Your task to perform on an android device: Open calendar and show me the first week of next month Image 0: 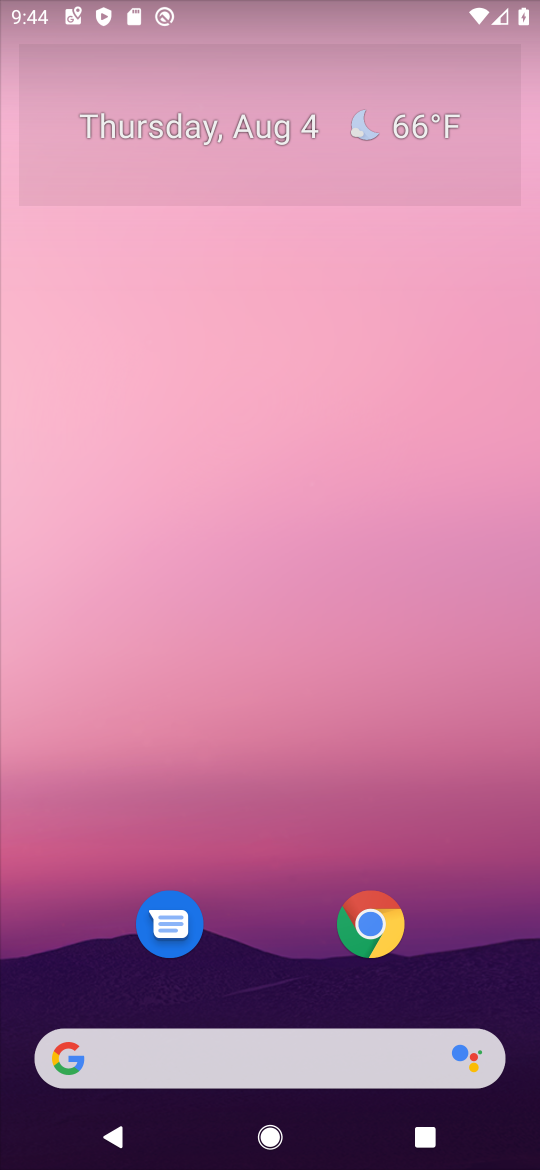
Step 0: drag from (235, 793) to (325, 85)
Your task to perform on an android device: Open calendar and show me the first week of next month Image 1: 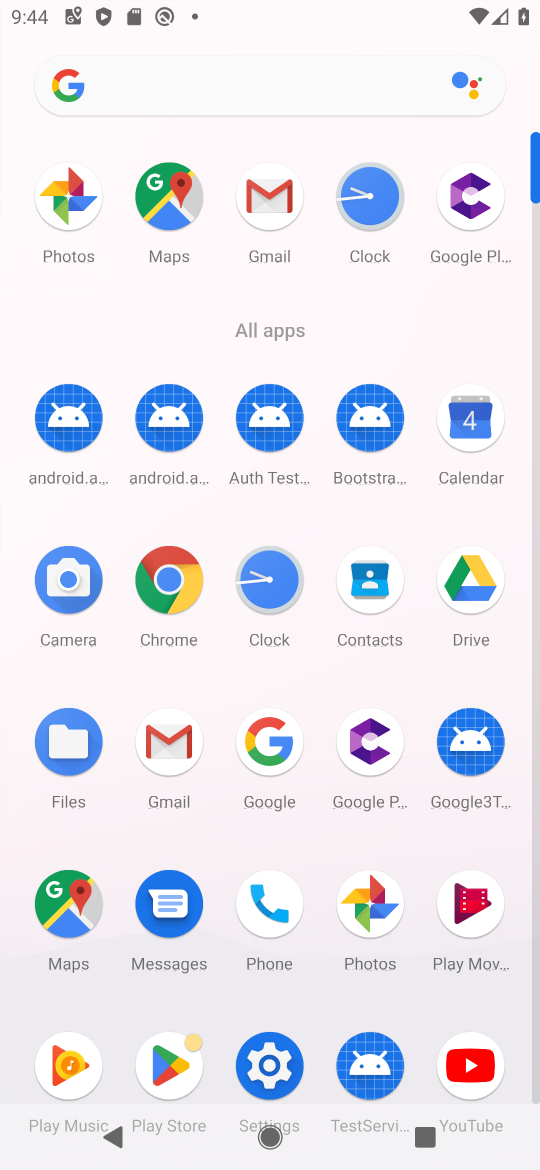
Step 1: click (475, 441)
Your task to perform on an android device: Open calendar and show me the first week of next month Image 2: 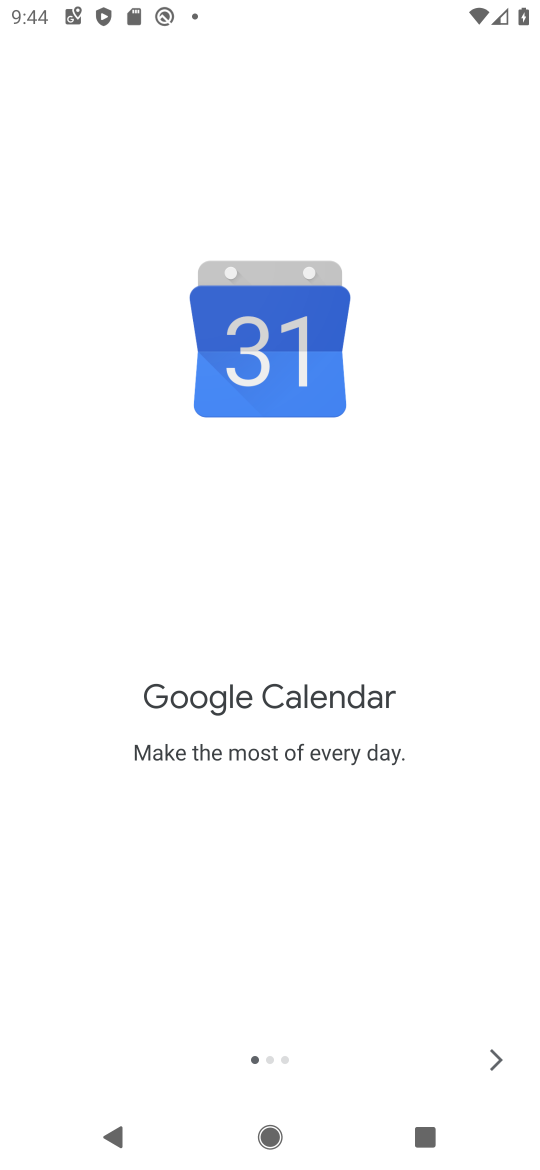
Step 2: click (488, 1063)
Your task to perform on an android device: Open calendar and show me the first week of next month Image 3: 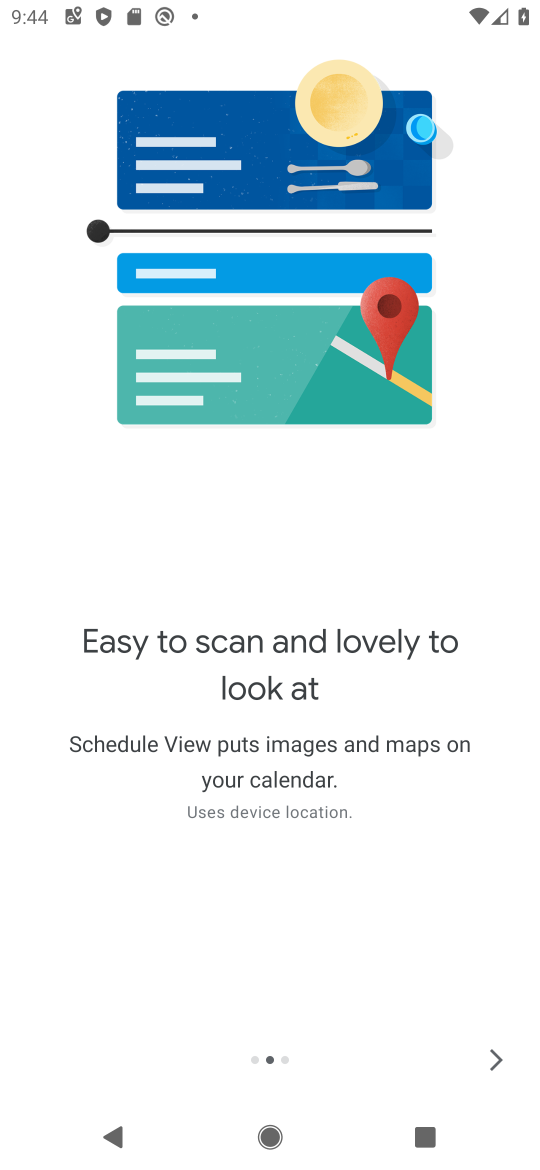
Step 3: click (492, 1063)
Your task to perform on an android device: Open calendar and show me the first week of next month Image 4: 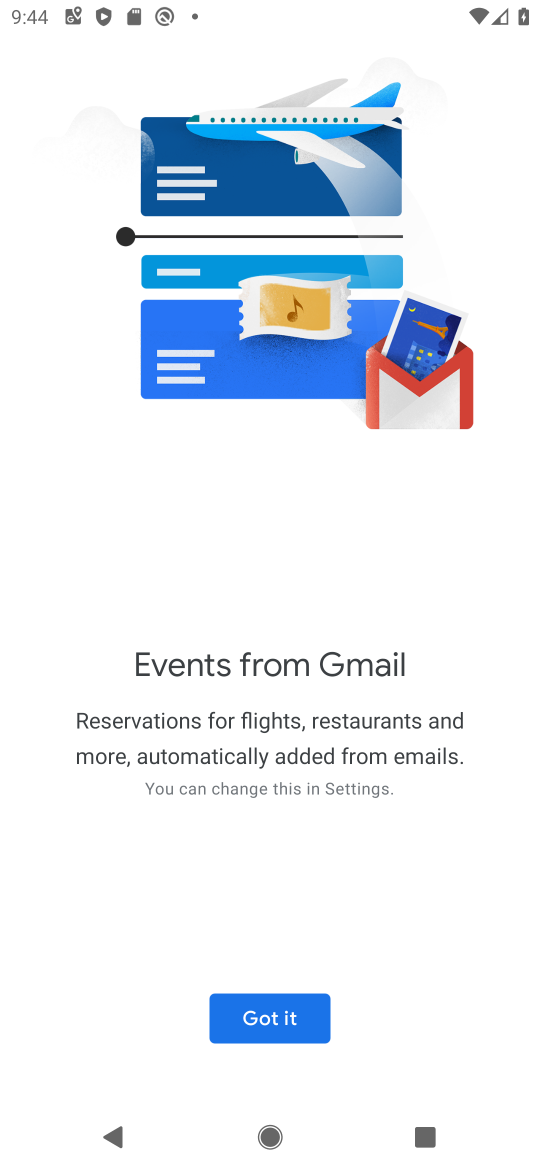
Step 4: click (313, 1022)
Your task to perform on an android device: Open calendar and show me the first week of next month Image 5: 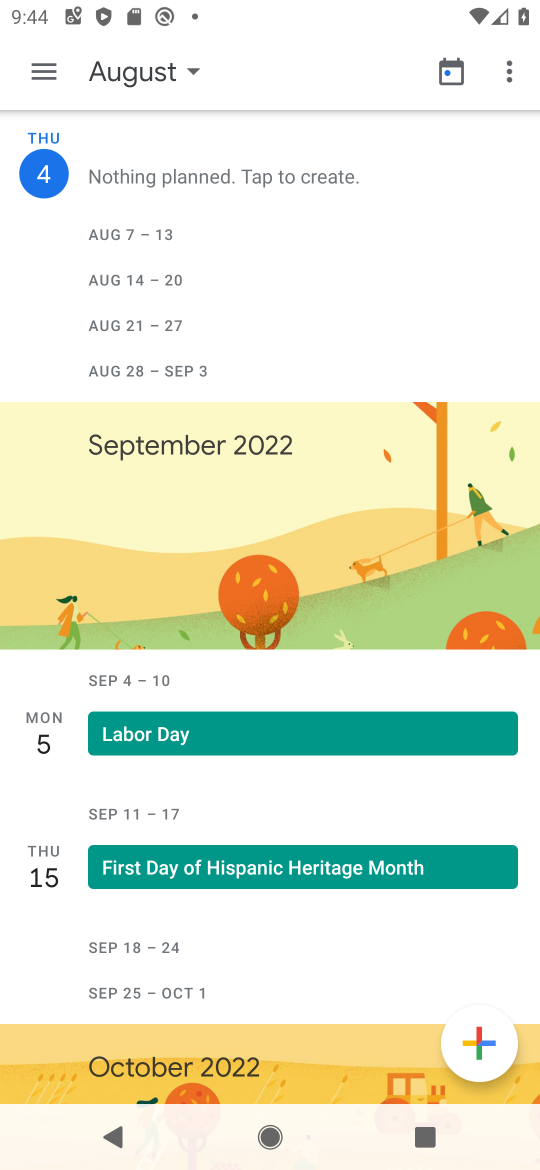
Step 5: task complete